Your task to perform on an android device: all mails in gmail Image 0: 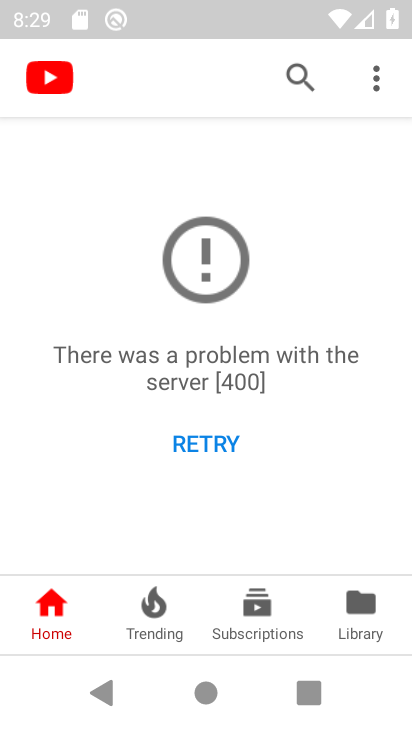
Step 0: press home button
Your task to perform on an android device: all mails in gmail Image 1: 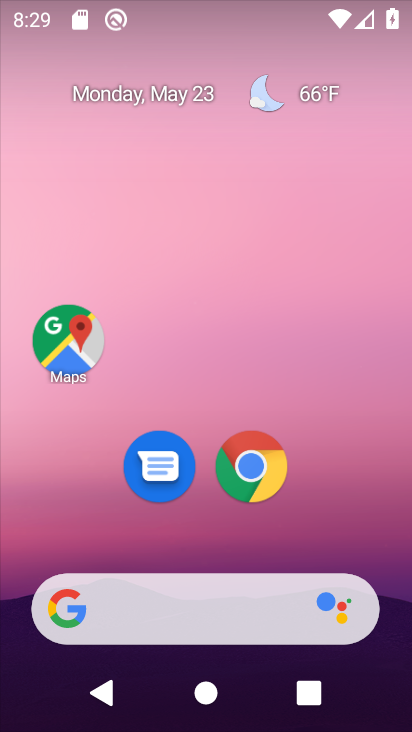
Step 1: drag from (215, 538) to (285, 20)
Your task to perform on an android device: all mails in gmail Image 2: 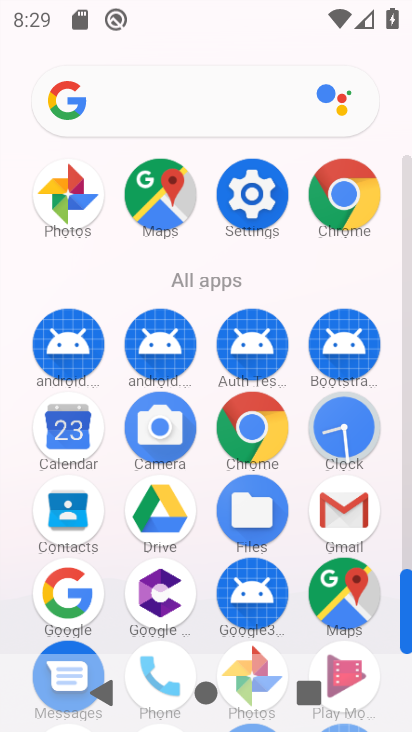
Step 2: click (347, 504)
Your task to perform on an android device: all mails in gmail Image 3: 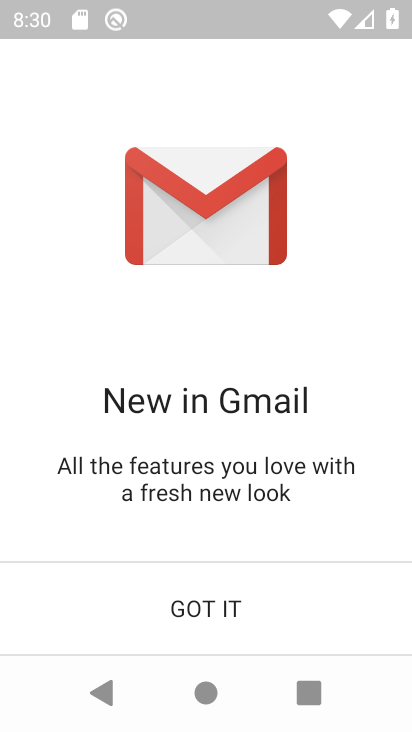
Step 3: click (193, 618)
Your task to perform on an android device: all mails in gmail Image 4: 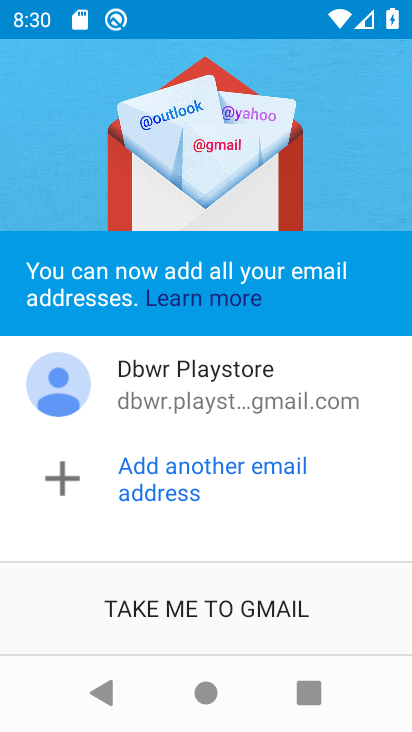
Step 4: click (195, 618)
Your task to perform on an android device: all mails in gmail Image 5: 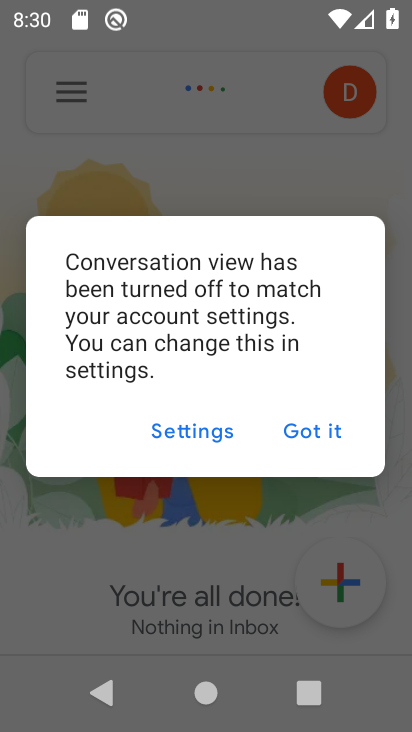
Step 5: click (316, 436)
Your task to perform on an android device: all mails in gmail Image 6: 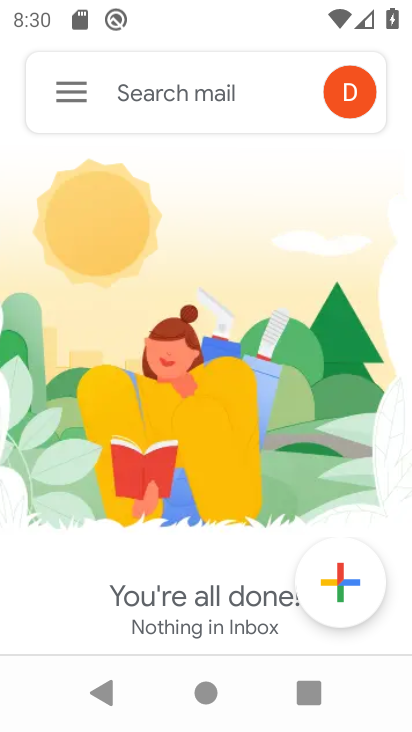
Step 6: click (69, 94)
Your task to perform on an android device: all mails in gmail Image 7: 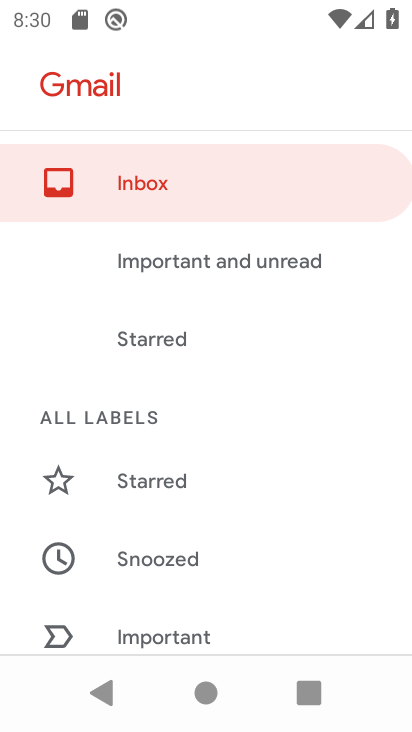
Step 7: drag from (179, 558) to (208, 154)
Your task to perform on an android device: all mails in gmail Image 8: 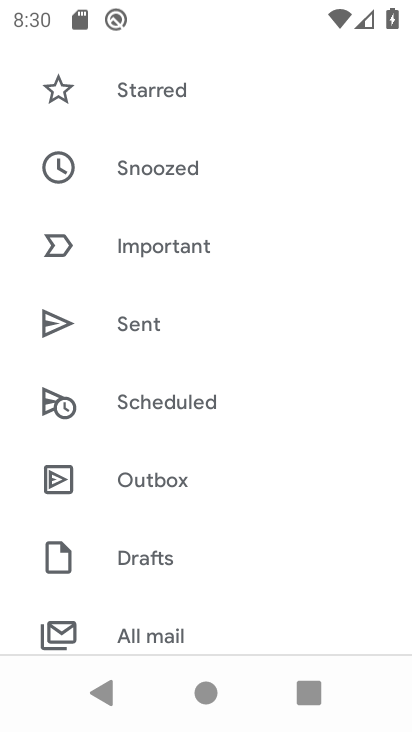
Step 8: click (153, 632)
Your task to perform on an android device: all mails in gmail Image 9: 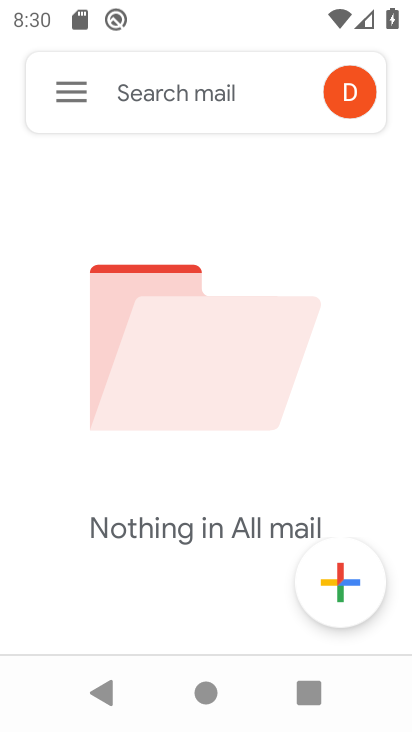
Step 9: task complete